Your task to perform on an android device: toggle improve location accuracy Image 0: 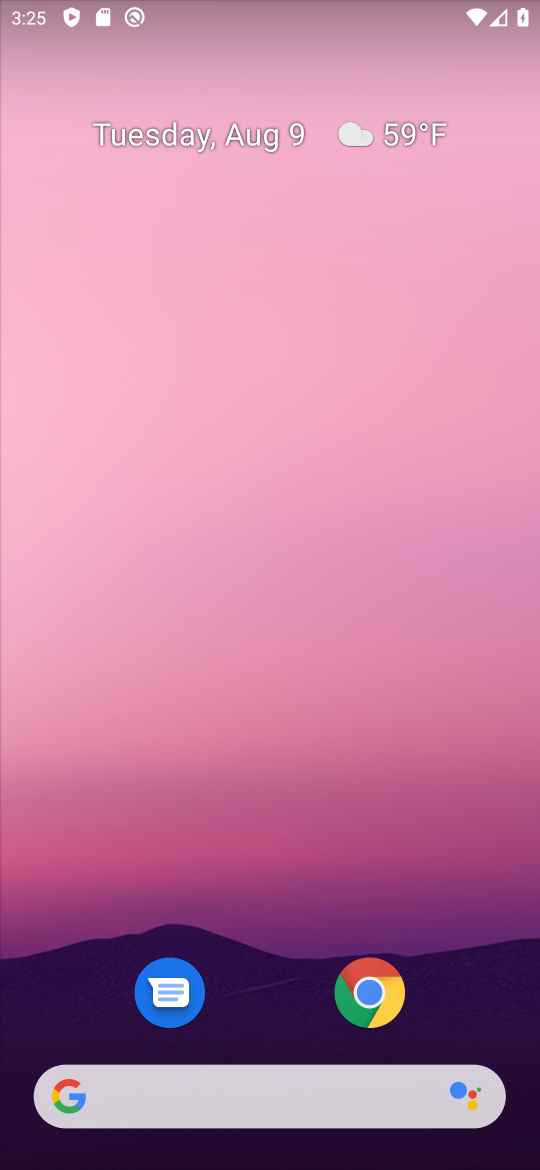
Step 0: drag from (257, 855) to (288, 169)
Your task to perform on an android device: toggle improve location accuracy Image 1: 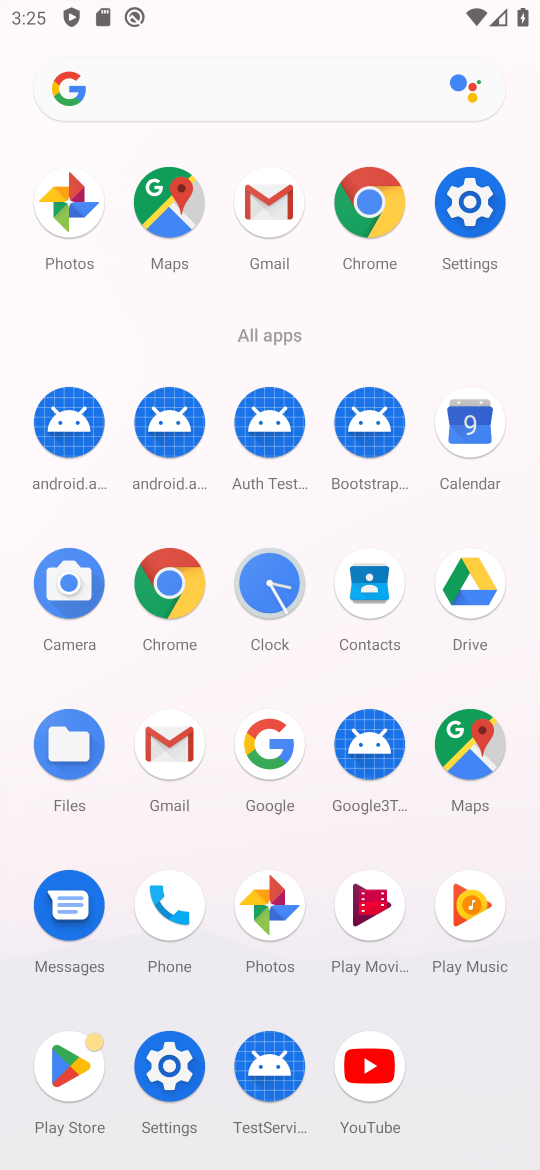
Step 1: click (463, 210)
Your task to perform on an android device: toggle improve location accuracy Image 2: 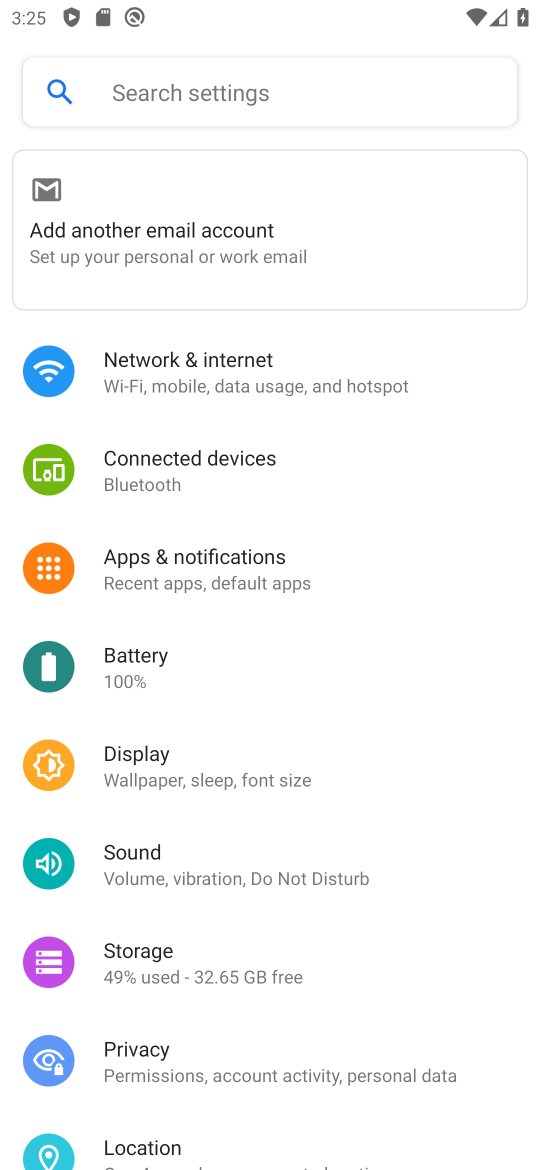
Step 2: click (161, 1150)
Your task to perform on an android device: toggle improve location accuracy Image 3: 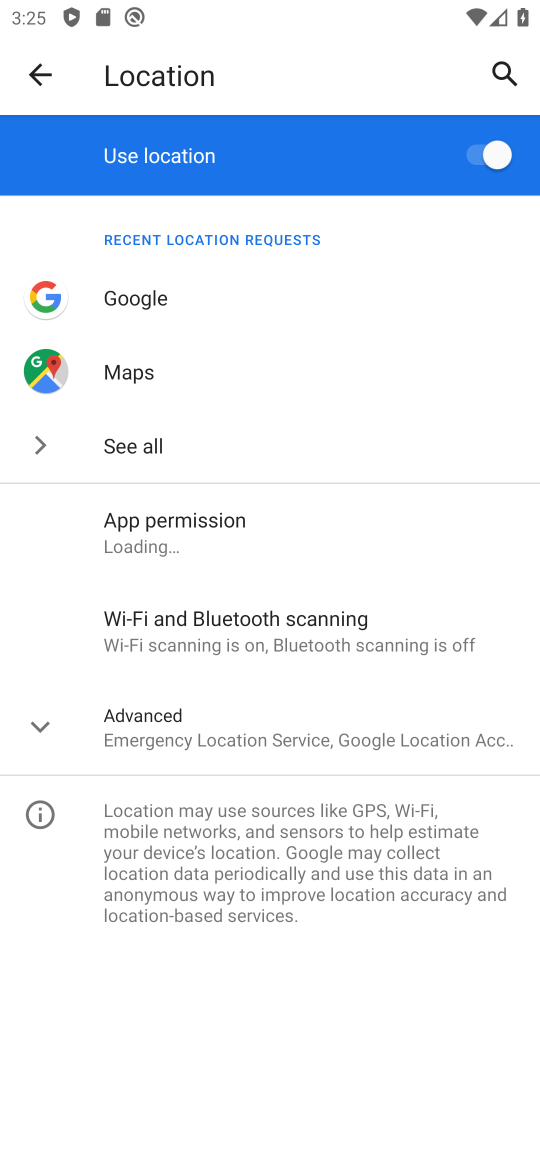
Step 3: click (245, 717)
Your task to perform on an android device: toggle improve location accuracy Image 4: 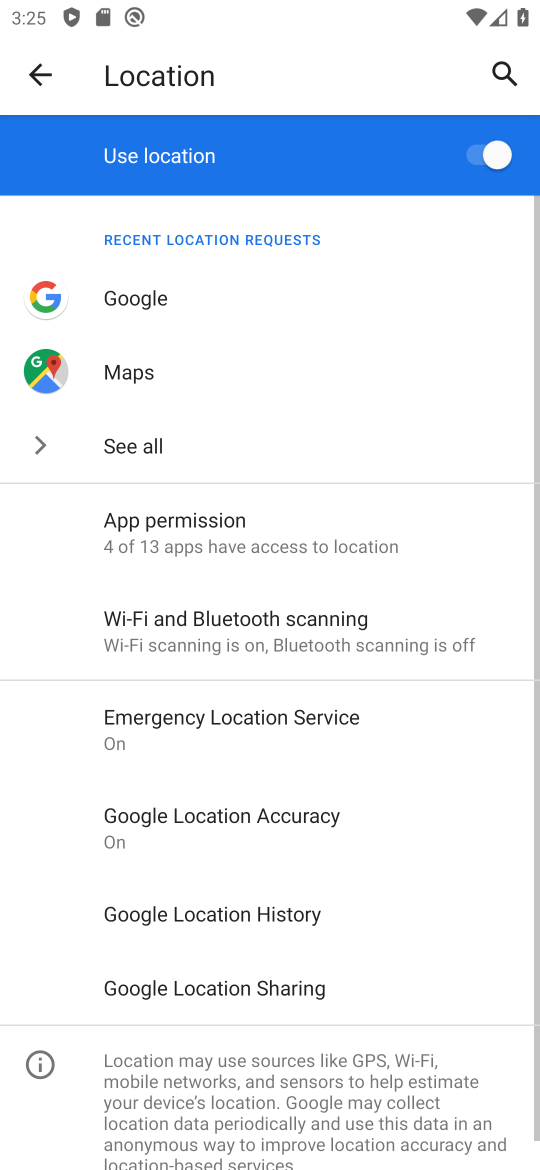
Step 4: click (256, 819)
Your task to perform on an android device: toggle improve location accuracy Image 5: 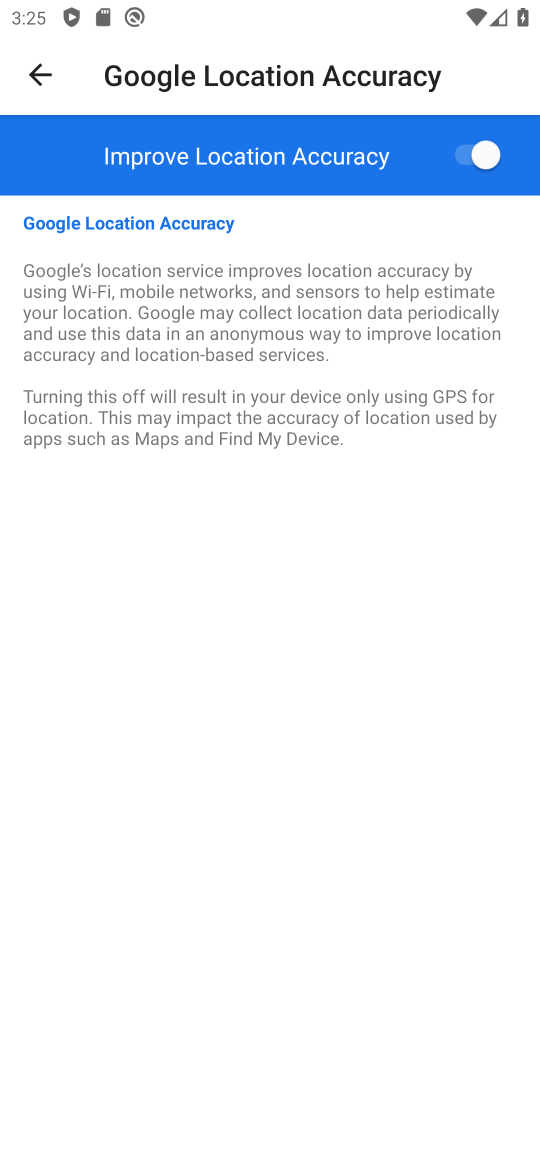
Step 5: click (485, 146)
Your task to perform on an android device: toggle improve location accuracy Image 6: 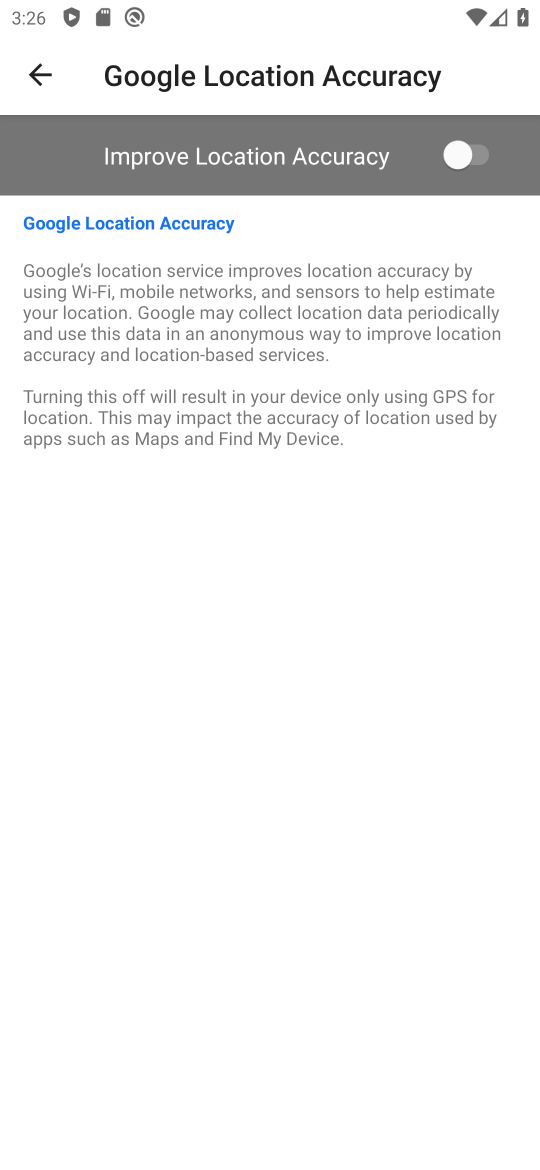
Step 6: task complete